Your task to perform on an android device: find which apps use the phone's location Image 0: 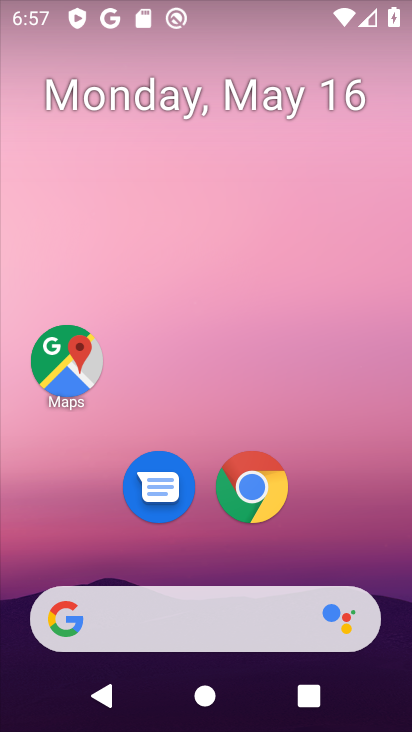
Step 0: drag from (363, 553) to (277, 13)
Your task to perform on an android device: find which apps use the phone's location Image 1: 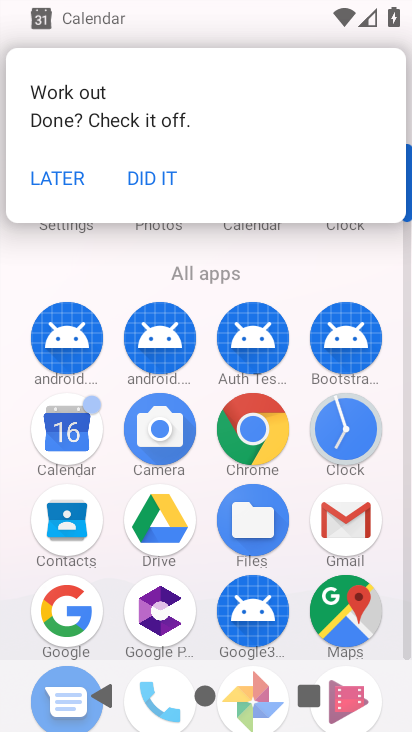
Step 1: click (136, 188)
Your task to perform on an android device: find which apps use the phone's location Image 2: 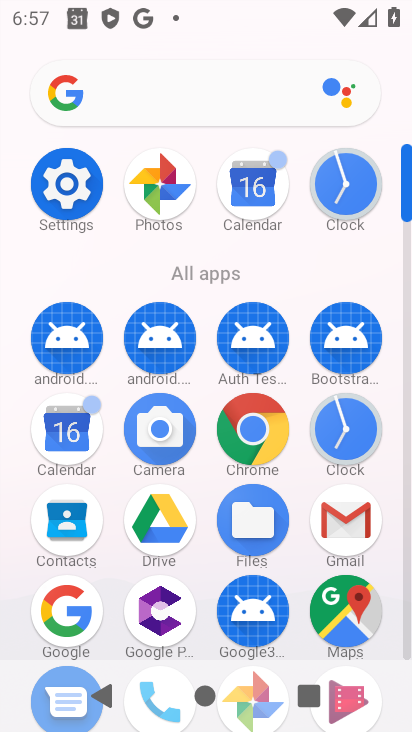
Step 2: drag from (195, 306) to (184, 3)
Your task to perform on an android device: find which apps use the phone's location Image 3: 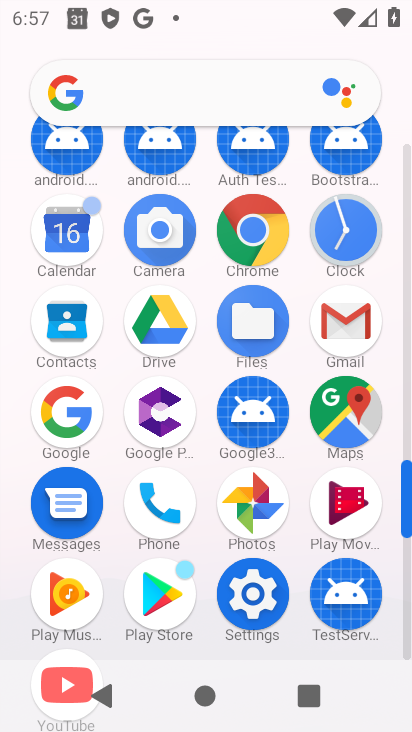
Step 3: click (239, 597)
Your task to perform on an android device: find which apps use the phone's location Image 4: 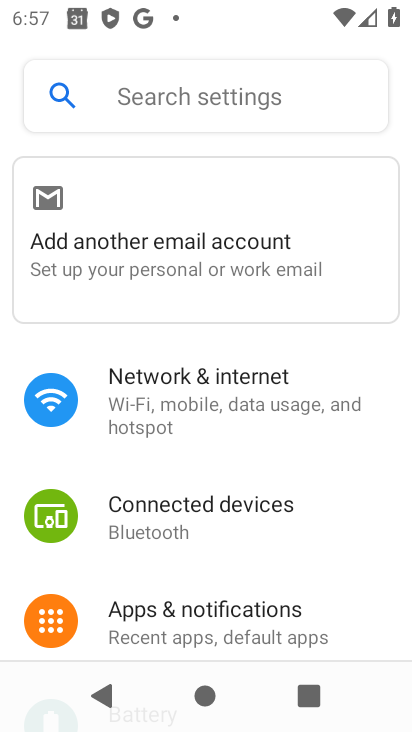
Step 4: drag from (215, 576) to (161, 118)
Your task to perform on an android device: find which apps use the phone's location Image 5: 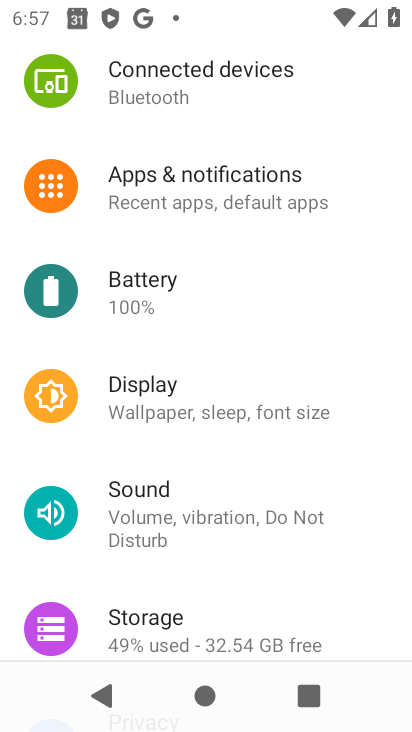
Step 5: drag from (224, 601) to (200, 166)
Your task to perform on an android device: find which apps use the phone's location Image 6: 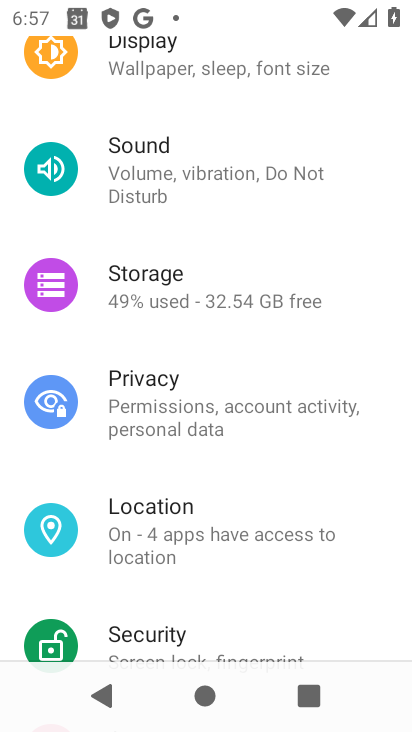
Step 6: click (210, 507)
Your task to perform on an android device: find which apps use the phone's location Image 7: 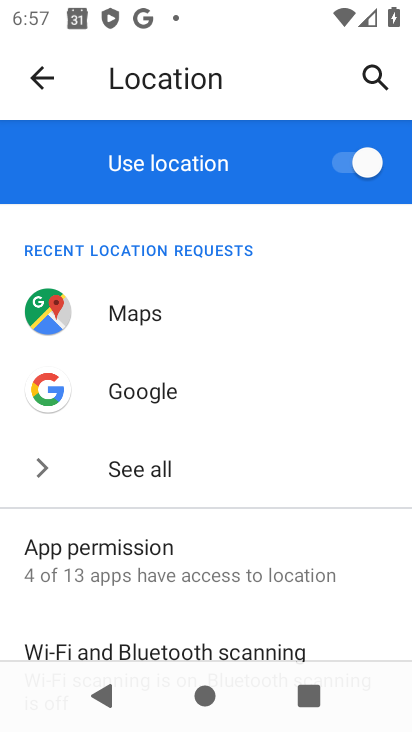
Step 7: click (187, 568)
Your task to perform on an android device: find which apps use the phone's location Image 8: 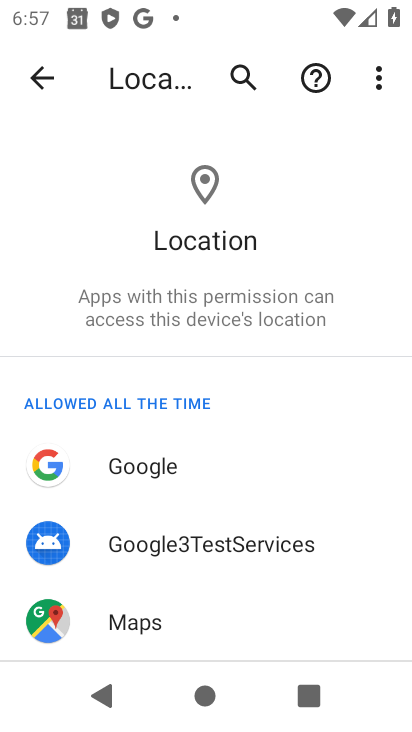
Step 8: task complete